Your task to perform on an android device: Open battery settings Image 0: 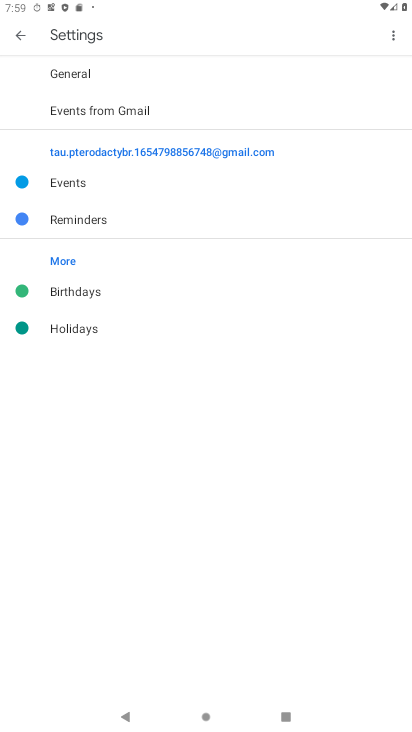
Step 0: press home button
Your task to perform on an android device: Open battery settings Image 1: 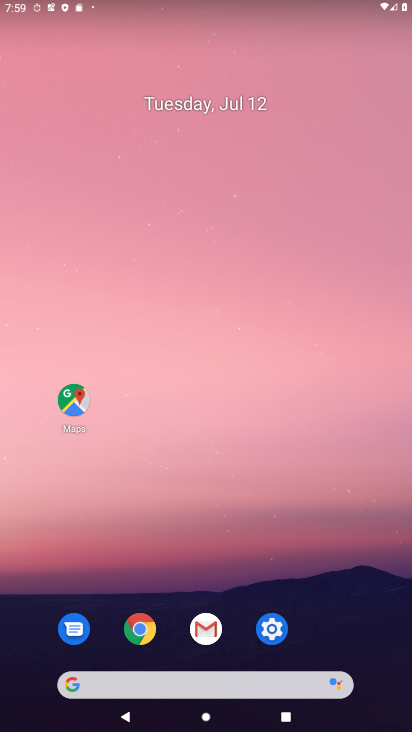
Step 1: click (268, 625)
Your task to perform on an android device: Open battery settings Image 2: 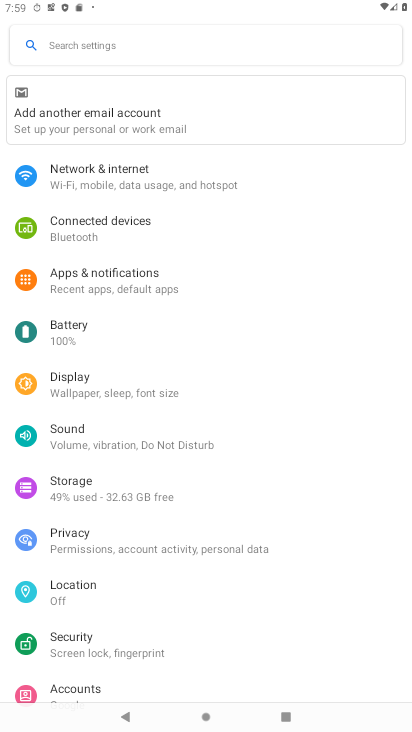
Step 2: click (96, 342)
Your task to perform on an android device: Open battery settings Image 3: 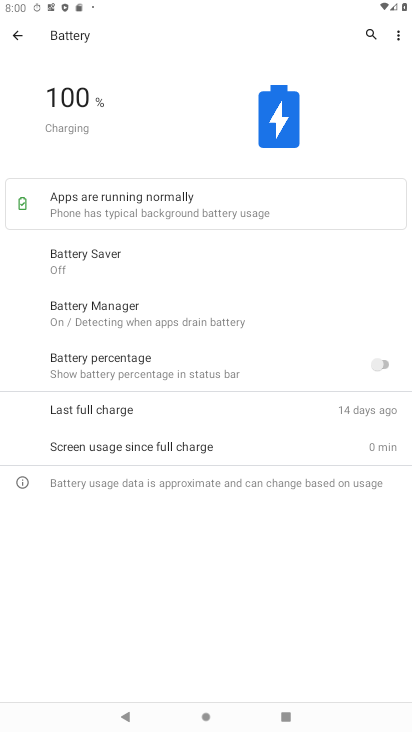
Step 3: task complete